Your task to perform on an android device: Open privacy settings Image 0: 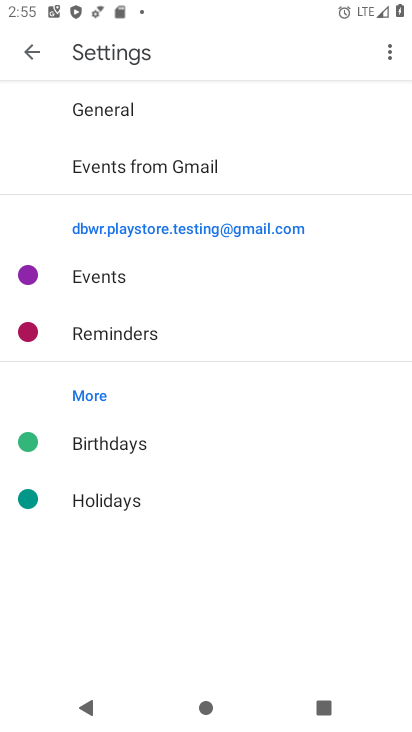
Step 0: press home button
Your task to perform on an android device: Open privacy settings Image 1: 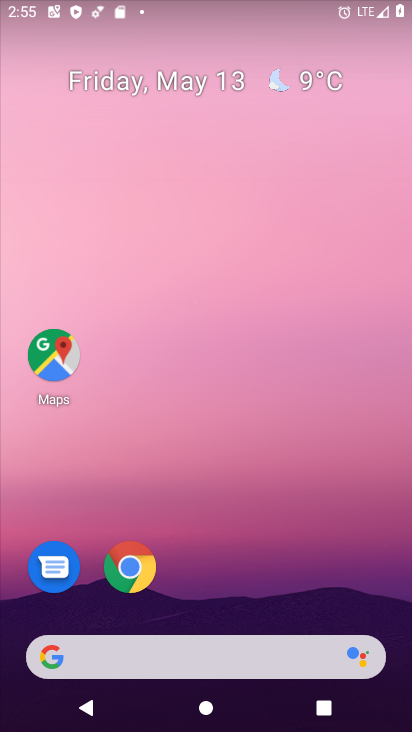
Step 1: drag from (216, 589) to (296, 12)
Your task to perform on an android device: Open privacy settings Image 2: 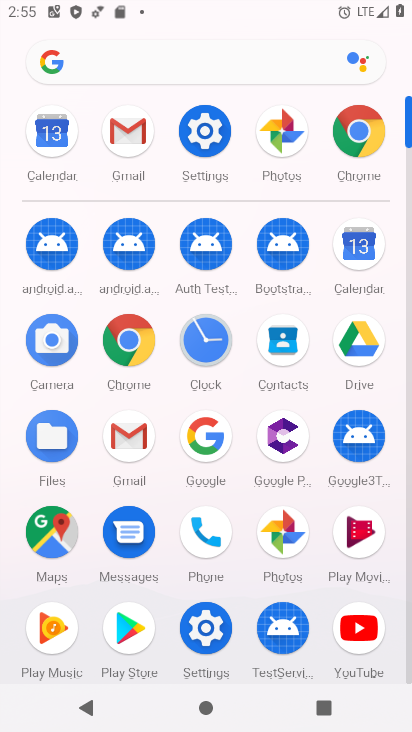
Step 2: click (205, 163)
Your task to perform on an android device: Open privacy settings Image 3: 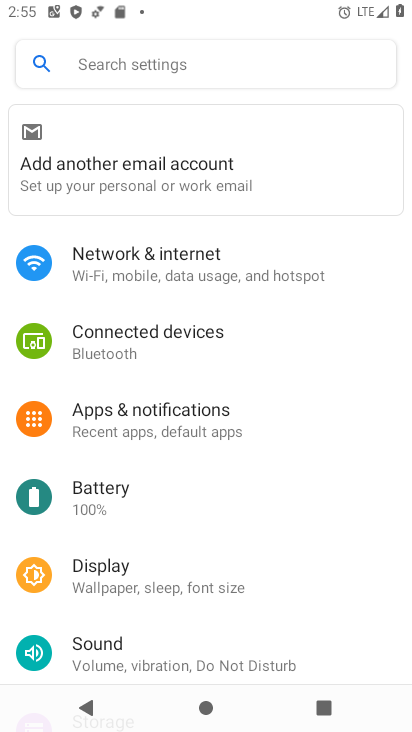
Step 3: drag from (205, 487) to (229, 150)
Your task to perform on an android device: Open privacy settings Image 4: 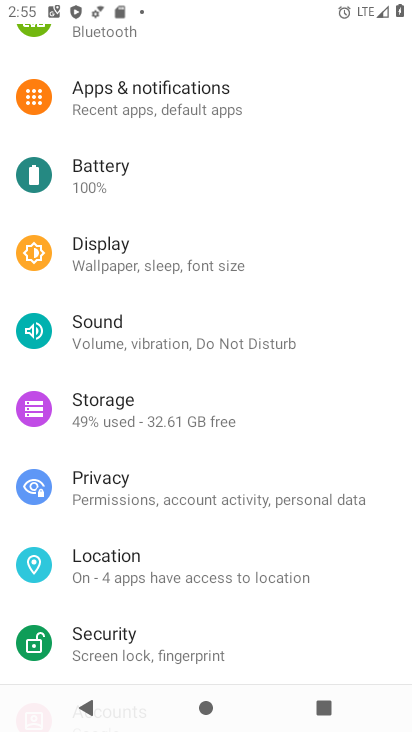
Step 4: click (155, 500)
Your task to perform on an android device: Open privacy settings Image 5: 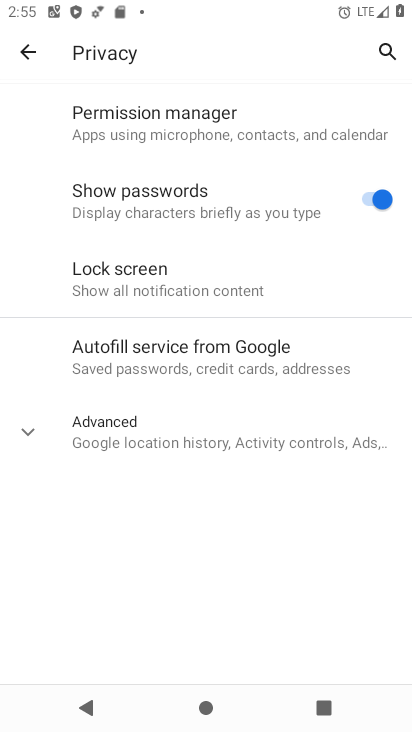
Step 5: task complete